Your task to perform on an android device: Search for a runner rug on Crate & Barrel Image 0: 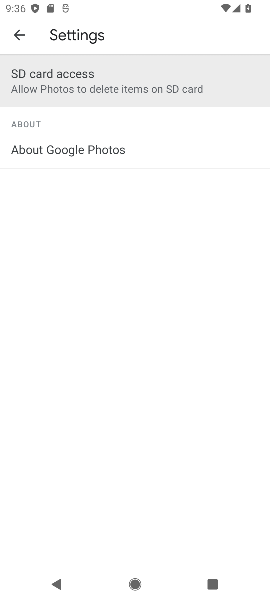
Step 0: press home button
Your task to perform on an android device: Search for a runner rug on Crate & Barrel Image 1: 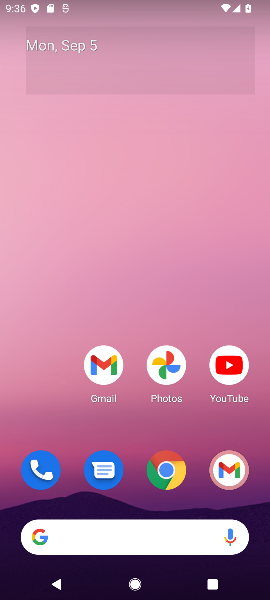
Step 1: click (137, 529)
Your task to perform on an android device: Search for a runner rug on Crate & Barrel Image 2: 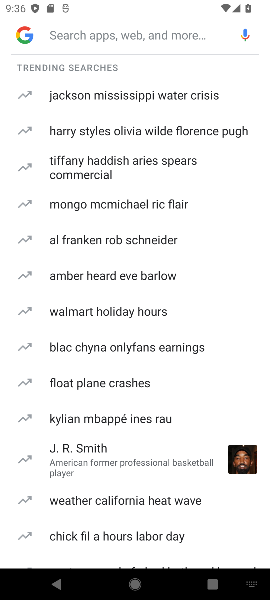
Step 2: type "crate & barrel"
Your task to perform on an android device: Search for a runner rug on Crate & Barrel Image 3: 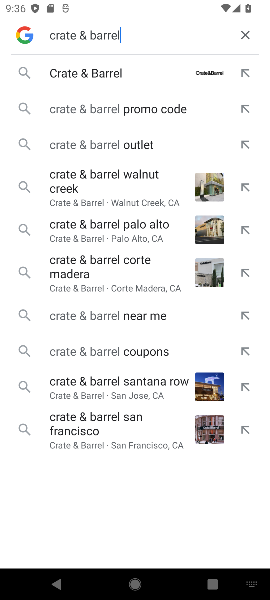
Step 3: click (87, 72)
Your task to perform on an android device: Search for a runner rug on Crate & Barrel Image 4: 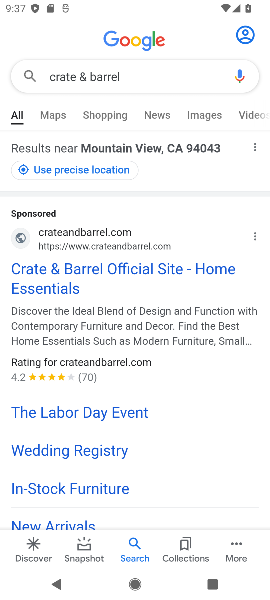
Step 4: click (66, 261)
Your task to perform on an android device: Search for a runner rug on Crate & Barrel Image 5: 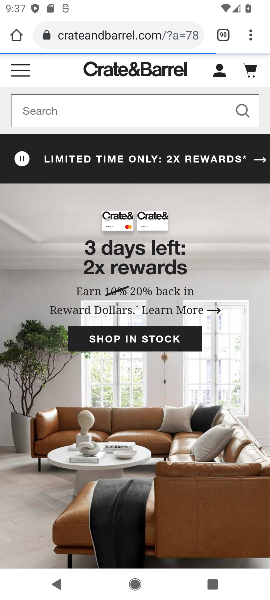
Step 5: click (120, 102)
Your task to perform on an android device: Search for a runner rug on Crate & Barrel Image 6: 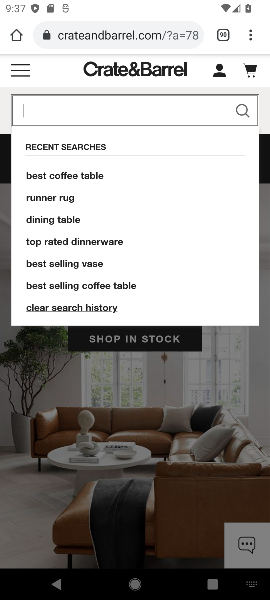
Step 6: type "runner rug"
Your task to perform on an android device: Search for a runner rug on Crate & Barrel Image 7: 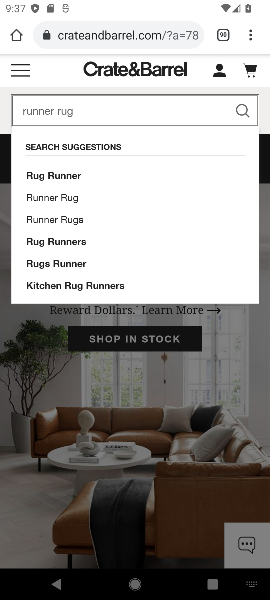
Step 7: click (242, 108)
Your task to perform on an android device: Search for a runner rug on Crate & Barrel Image 8: 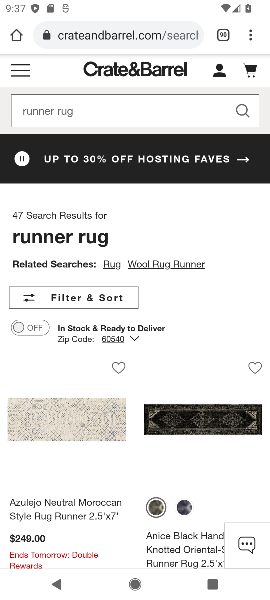
Step 8: task complete